Your task to perform on an android device: snooze an email in the gmail app Image 0: 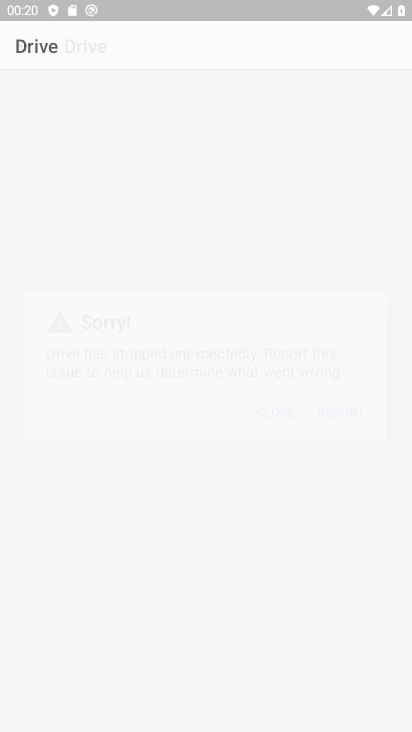
Step 0: drag from (189, 695) to (364, 145)
Your task to perform on an android device: snooze an email in the gmail app Image 1: 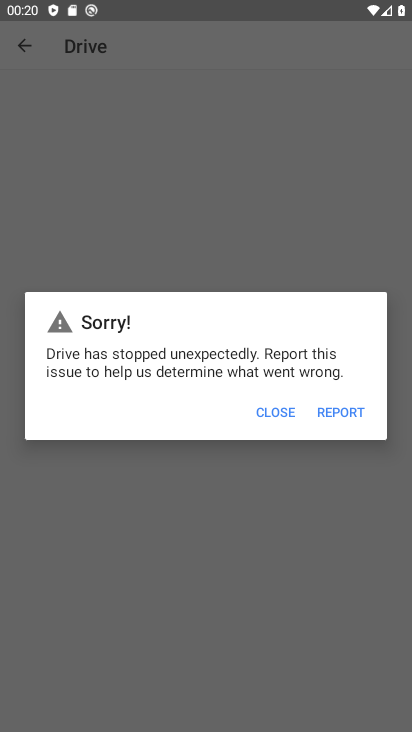
Step 1: press home button
Your task to perform on an android device: snooze an email in the gmail app Image 2: 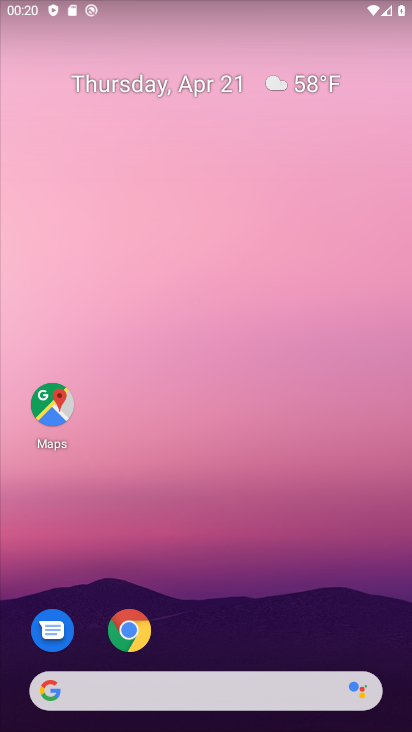
Step 2: drag from (145, 698) to (330, 129)
Your task to perform on an android device: snooze an email in the gmail app Image 3: 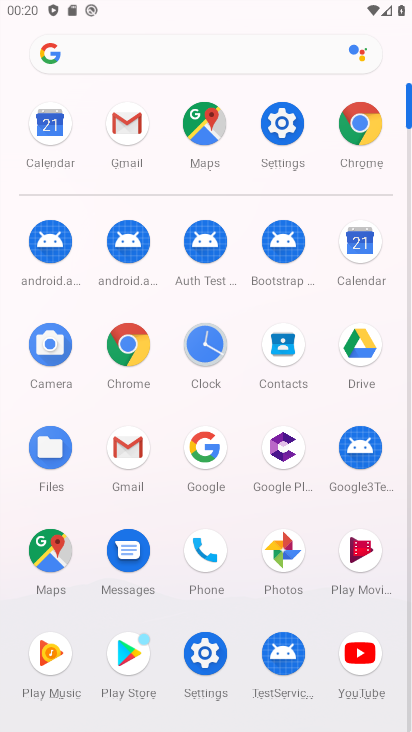
Step 3: click (130, 456)
Your task to perform on an android device: snooze an email in the gmail app Image 4: 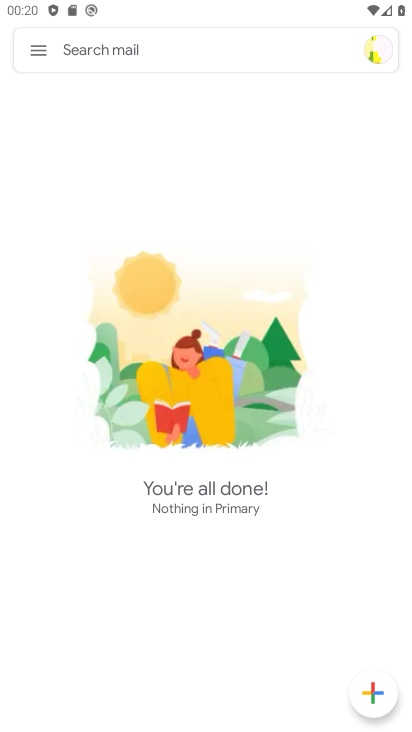
Step 4: task complete